Your task to perform on an android device: turn off location history Image 0: 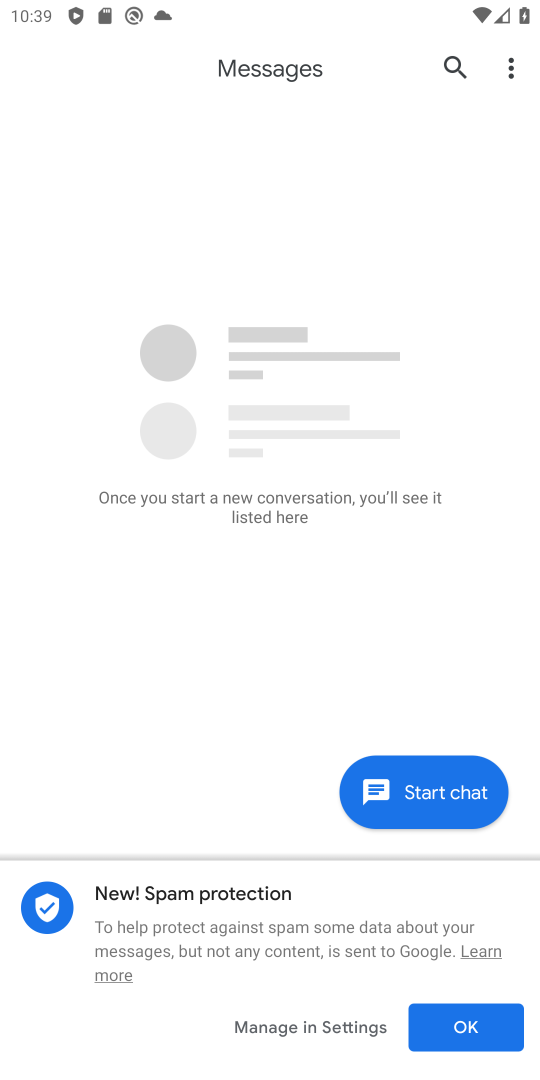
Step 0: press home button
Your task to perform on an android device: turn off location history Image 1: 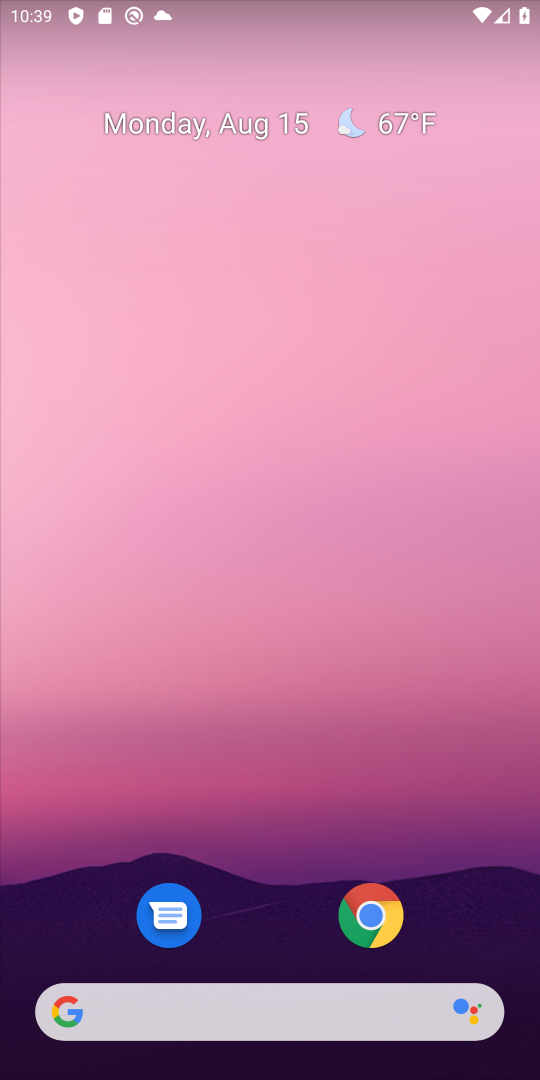
Step 1: drag from (469, 868) to (280, 154)
Your task to perform on an android device: turn off location history Image 2: 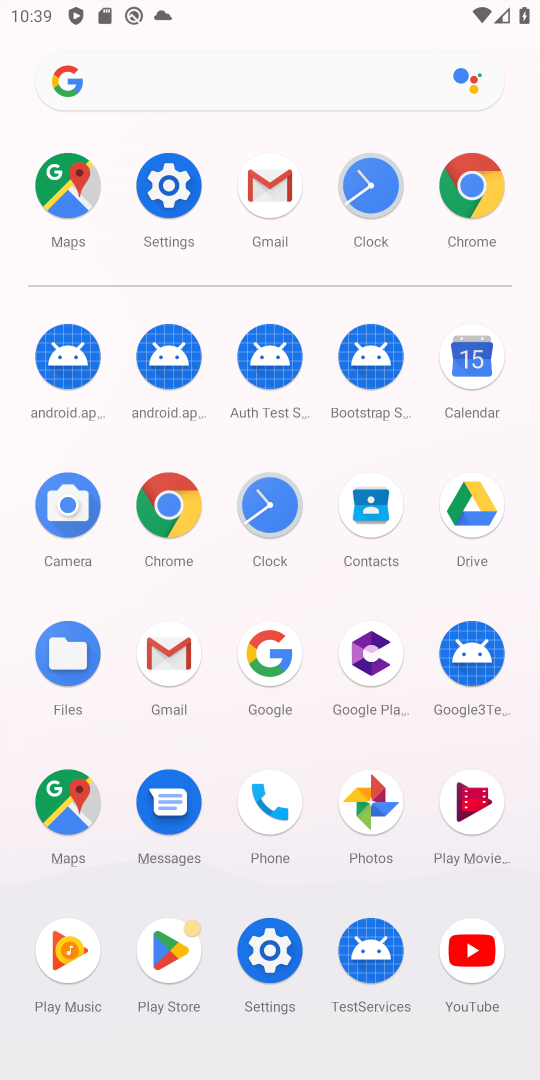
Step 2: click (270, 942)
Your task to perform on an android device: turn off location history Image 3: 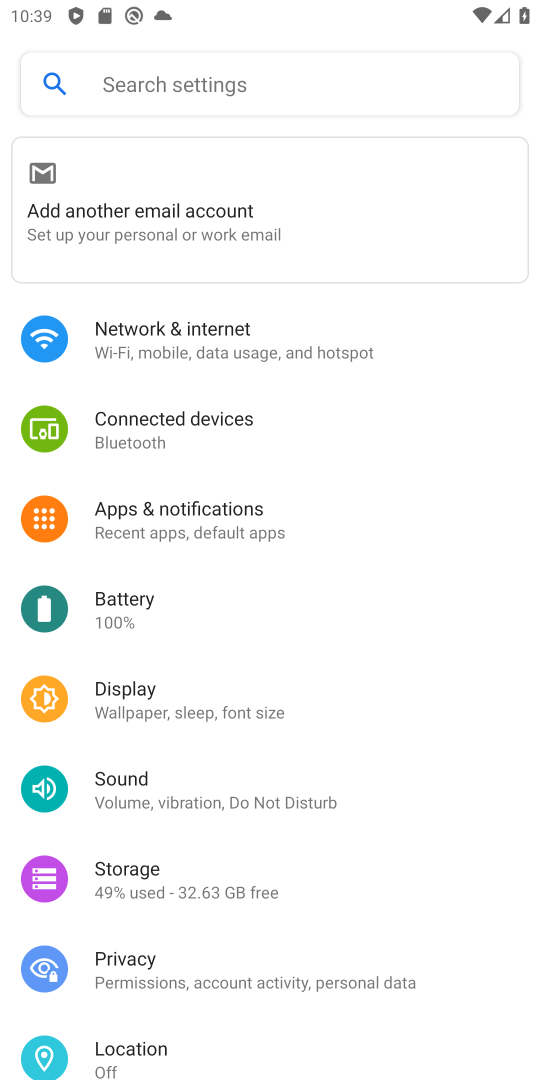
Step 3: click (197, 1061)
Your task to perform on an android device: turn off location history Image 4: 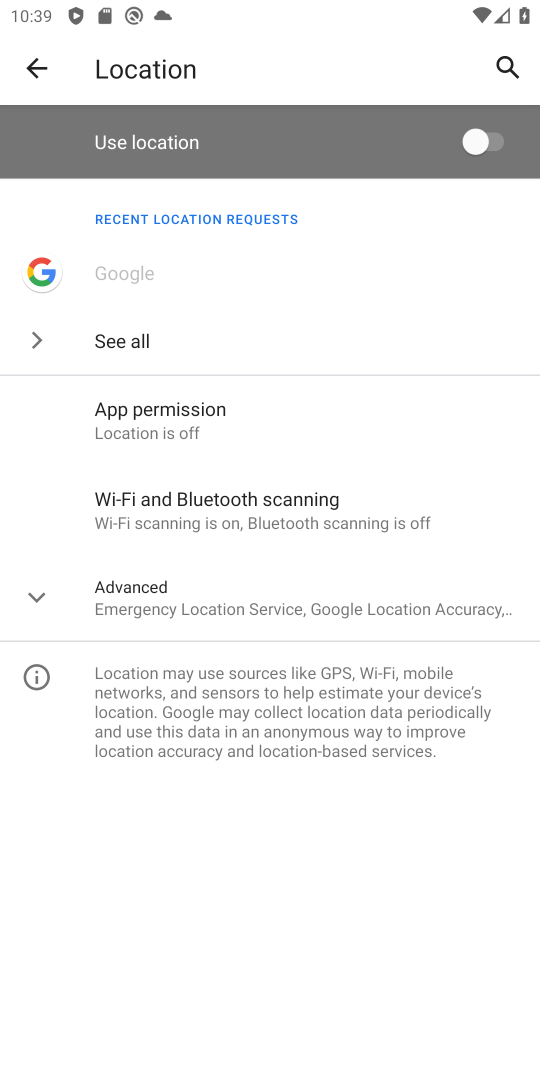
Step 4: click (199, 605)
Your task to perform on an android device: turn off location history Image 5: 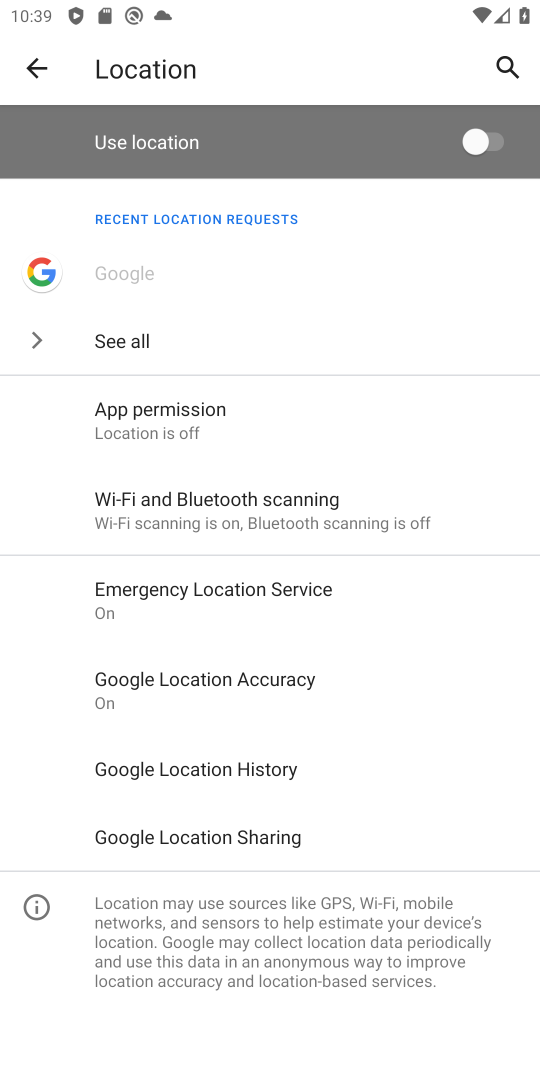
Step 5: click (271, 766)
Your task to perform on an android device: turn off location history Image 6: 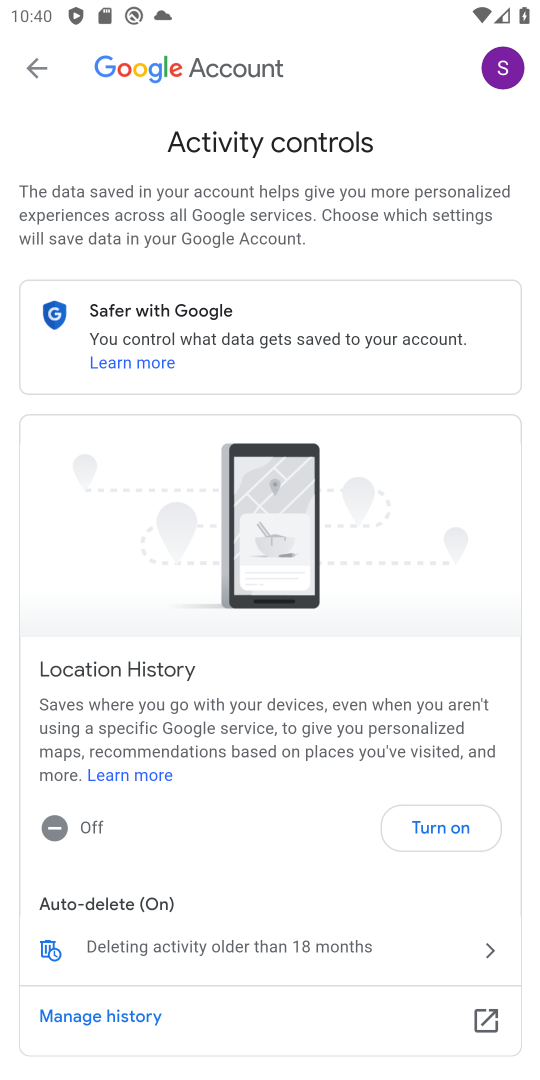
Step 6: task complete